Your task to perform on an android device: move an email to a new category in the gmail app Image 0: 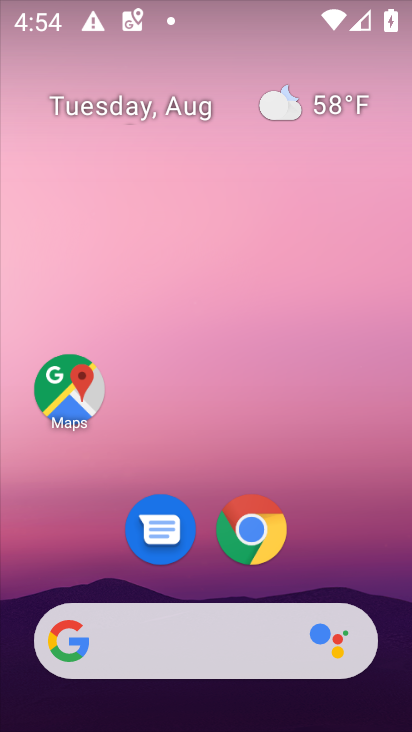
Step 0: drag from (173, 458) to (177, 107)
Your task to perform on an android device: move an email to a new category in the gmail app Image 1: 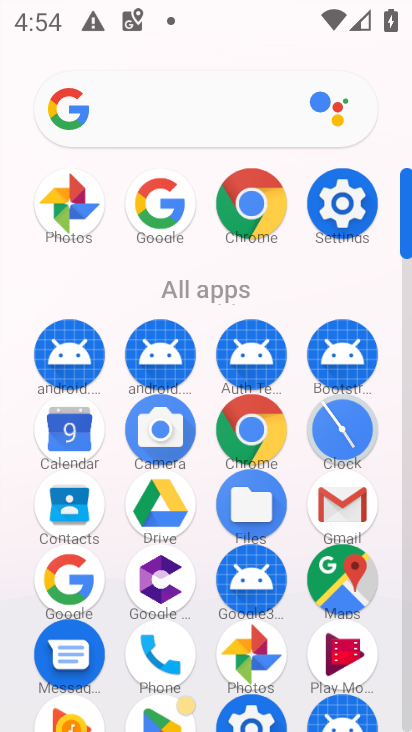
Step 1: click (337, 496)
Your task to perform on an android device: move an email to a new category in the gmail app Image 2: 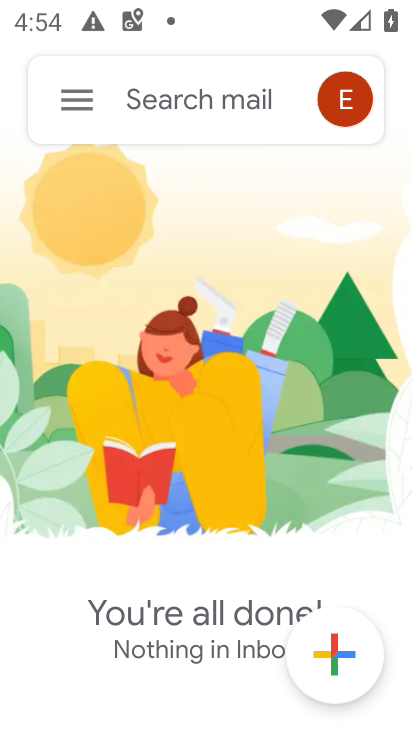
Step 2: click (75, 94)
Your task to perform on an android device: move an email to a new category in the gmail app Image 3: 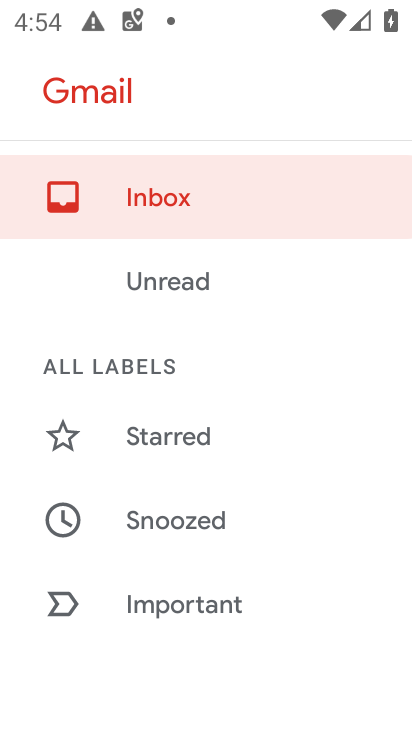
Step 3: drag from (181, 586) to (220, 181)
Your task to perform on an android device: move an email to a new category in the gmail app Image 4: 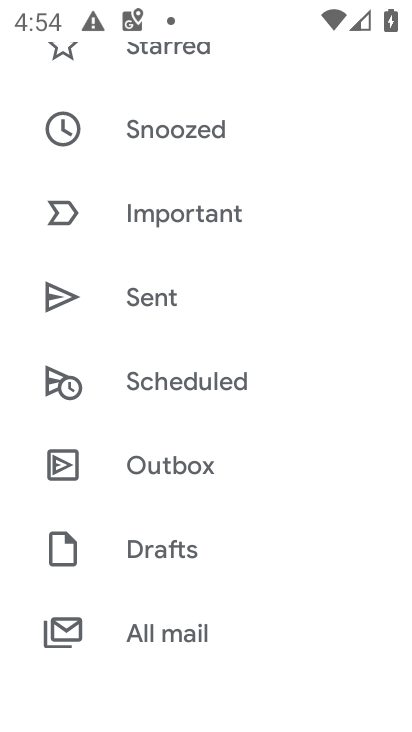
Step 4: drag from (243, 502) to (251, 183)
Your task to perform on an android device: move an email to a new category in the gmail app Image 5: 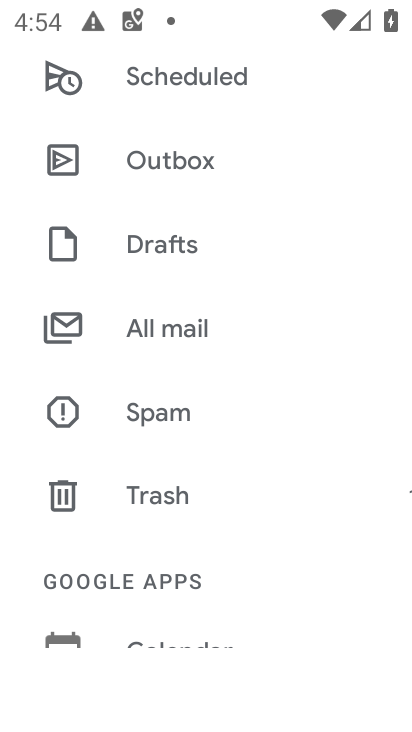
Step 5: click (164, 345)
Your task to perform on an android device: move an email to a new category in the gmail app Image 6: 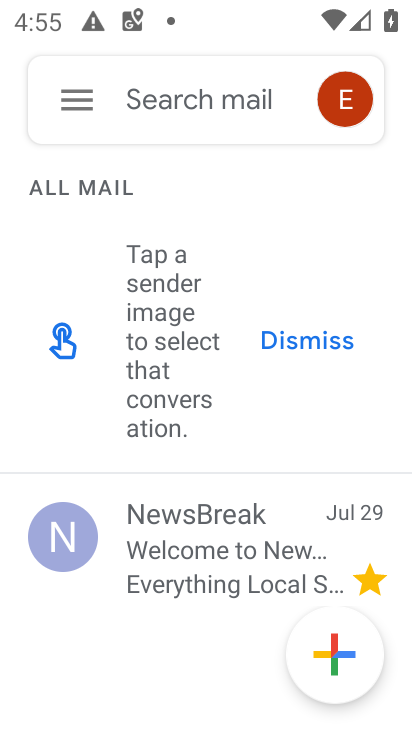
Step 6: click (229, 505)
Your task to perform on an android device: move an email to a new category in the gmail app Image 7: 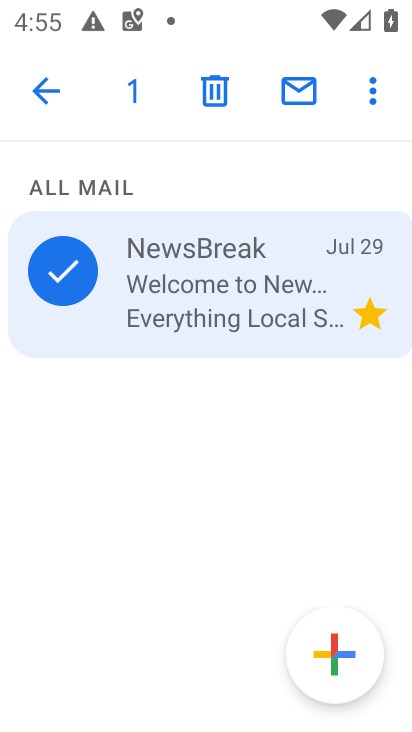
Step 7: click (366, 95)
Your task to perform on an android device: move an email to a new category in the gmail app Image 8: 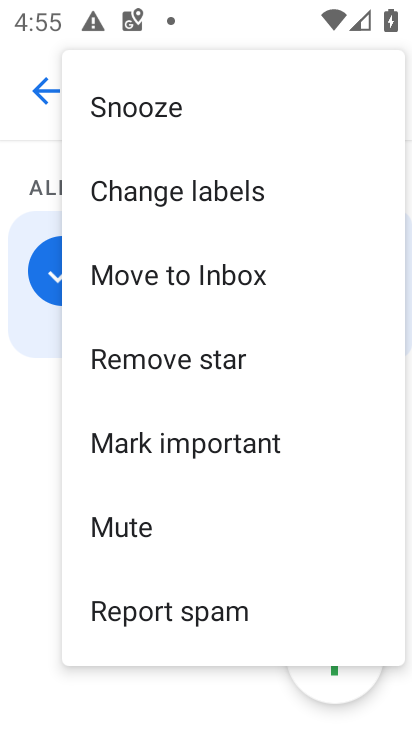
Step 8: click (189, 271)
Your task to perform on an android device: move an email to a new category in the gmail app Image 9: 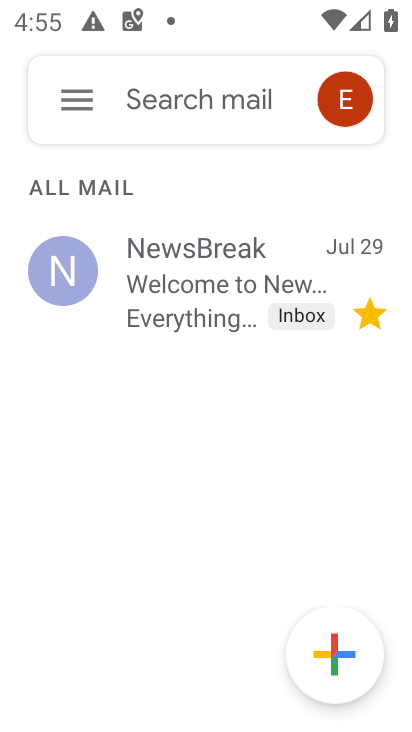
Step 9: task complete